Your task to perform on an android device: open chrome and create a bookmark for the current page Image 0: 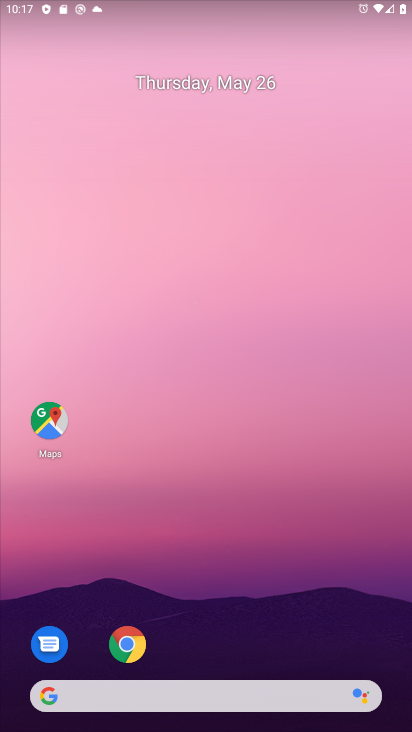
Step 0: click (131, 643)
Your task to perform on an android device: open chrome and create a bookmark for the current page Image 1: 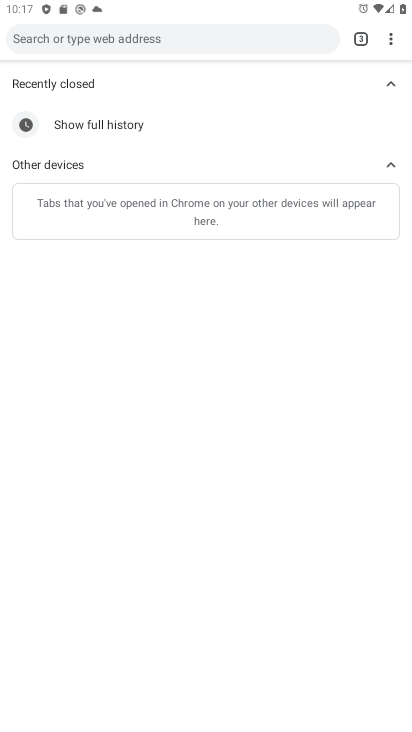
Step 1: click (362, 45)
Your task to perform on an android device: open chrome and create a bookmark for the current page Image 2: 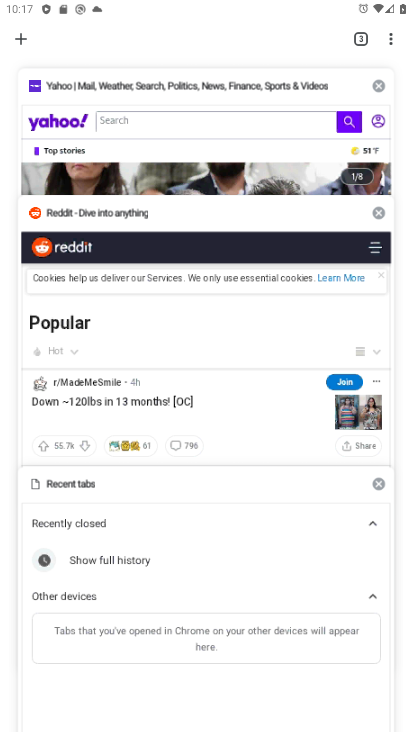
Step 2: click (151, 240)
Your task to perform on an android device: open chrome and create a bookmark for the current page Image 3: 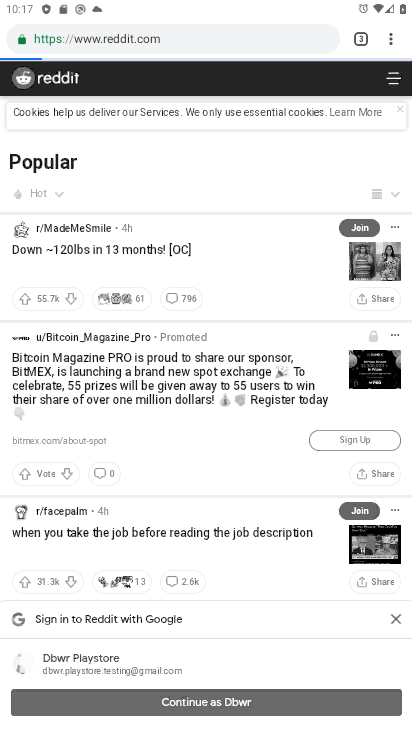
Step 3: click (389, 45)
Your task to perform on an android device: open chrome and create a bookmark for the current page Image 4: 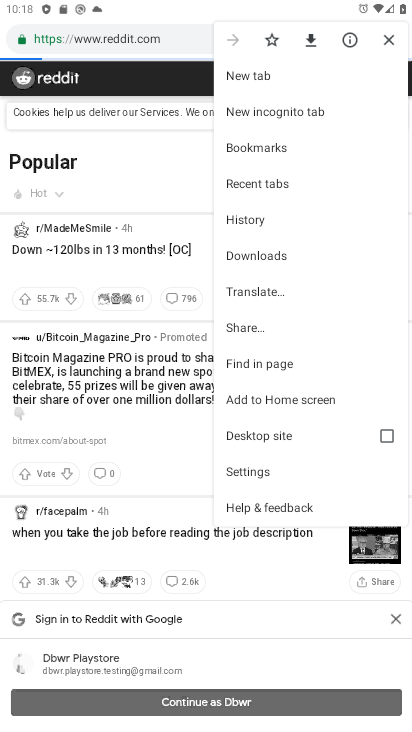
Step 4: click (273, 41)
Your task to perform on an android device: open chrome and create a bookmark for the current page Image 5: 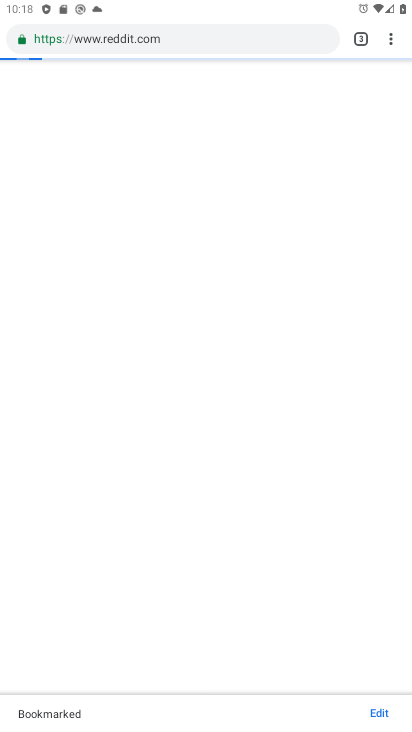
Step 5: task complete